Your task to perform on an android device: Set the phone to "Do not disturb". Image 0: 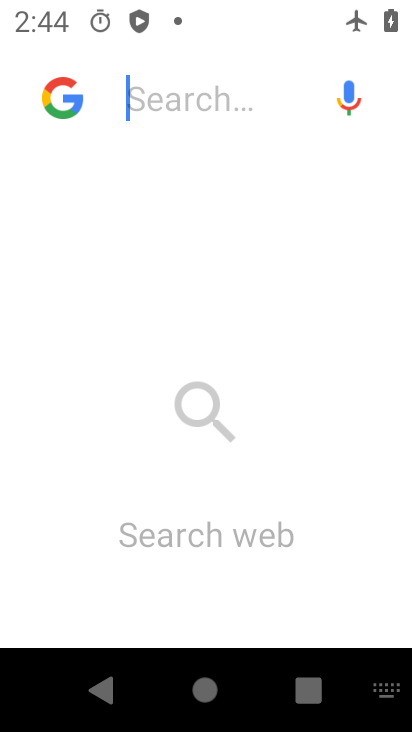
Step 0: press back button
Your task to perform on an android device: Set the phone to "Do not disturb". Image 1: 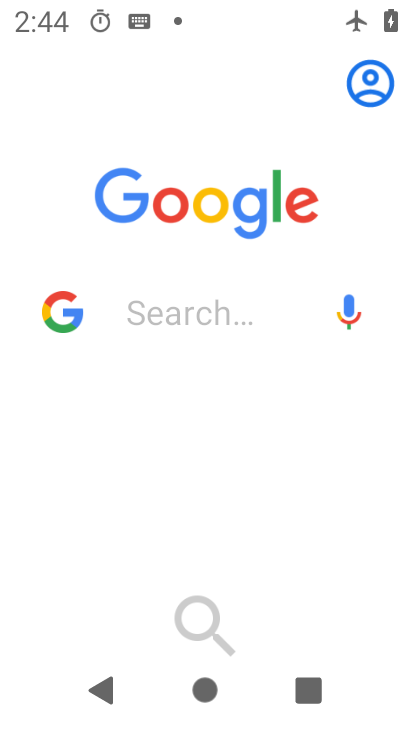
Step 1: press back button
Your task to perform on an android device: Set the phone to "Do not disturb". Image 2: 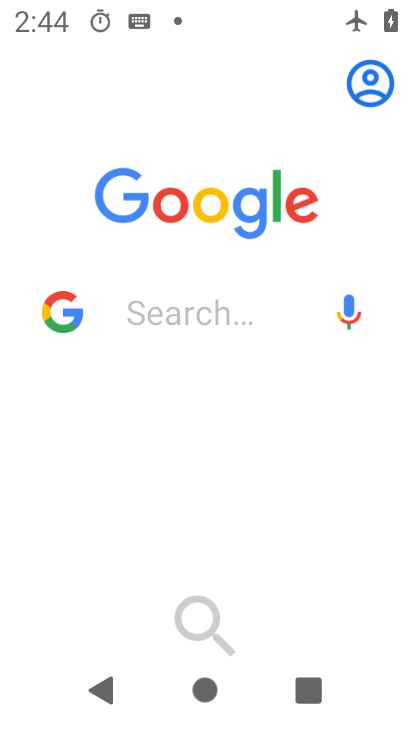
Step 2: press back button
Your task to perform on an android device: Set the phone to "Do not disturb". Image 3: 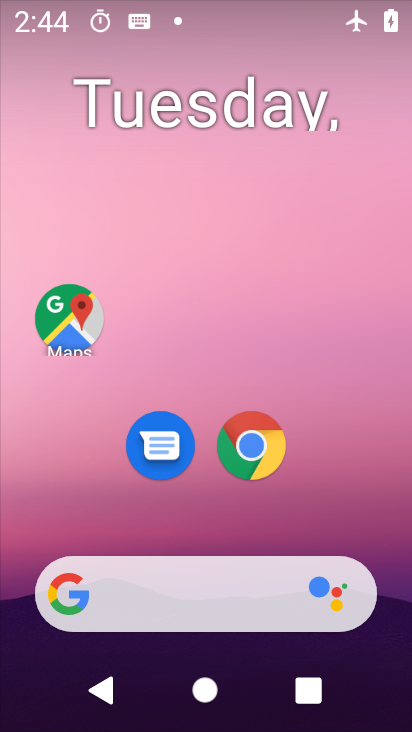
Step 3: drag from (361, 523) to (205, 115)
Your task to perform on an android device: Set the phone to "Do not disturb". Image 4: 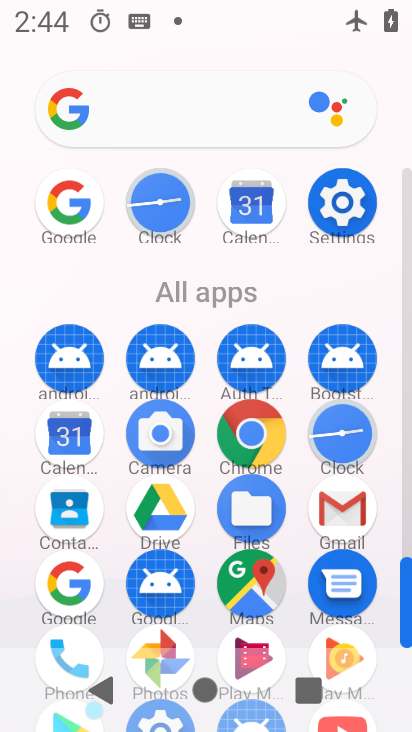
Step 4: click (362, 205)
Your task to perform on an android device: Set the phone to "Do not disturb". Image 5: 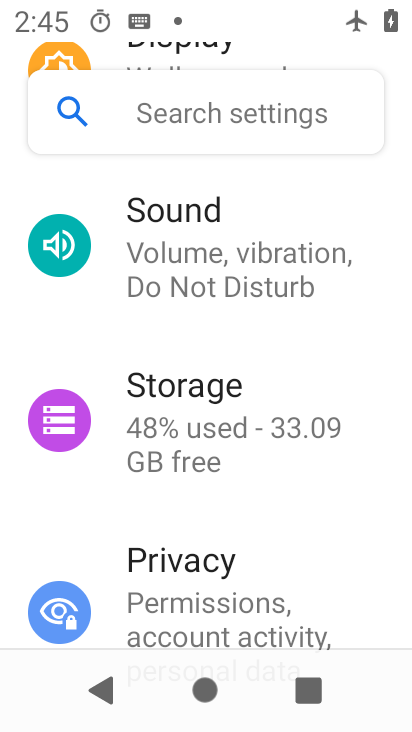
Step 5: click (189, 242)
Your task to perform on an android device: Set the phone to "Do not disturb". Image 6: 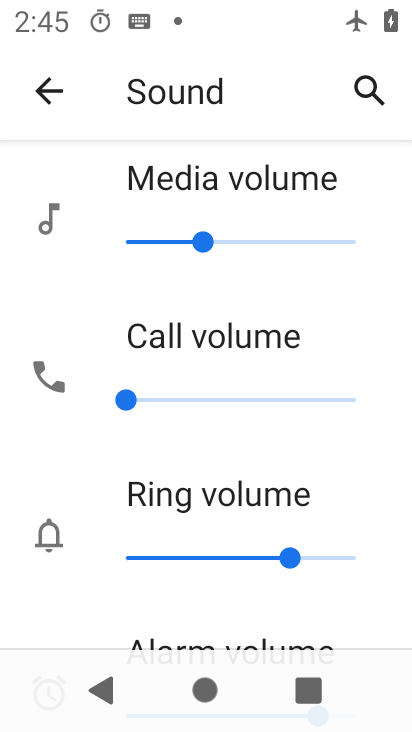
Step 6: drag from (182, 565) to (154, 165)
Your task to perform on an android device: Set the phone to "Do not disturb". Image 7: 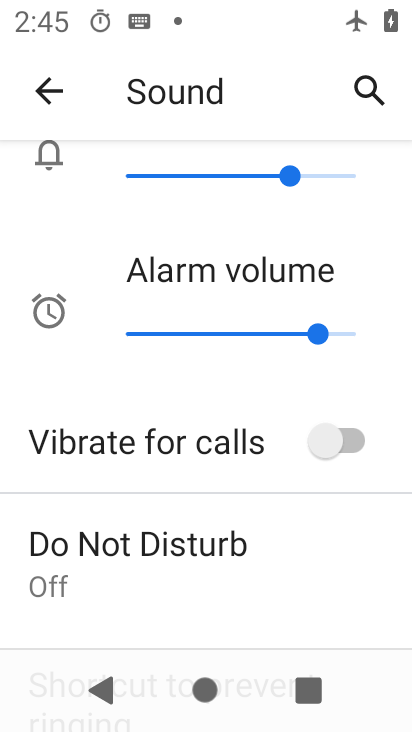
Step 7: click (90, 555)
Your task to perform on an android device: Set the phone to "Do not disturb". Image 8: 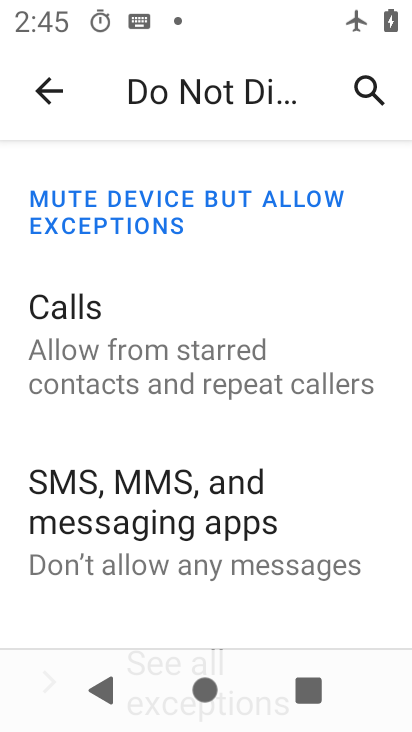
Step 8: drag from (90, 555) to (113, 161)
Your task to perform on an android device: Set the phone to "Do not disturb". Image 9: 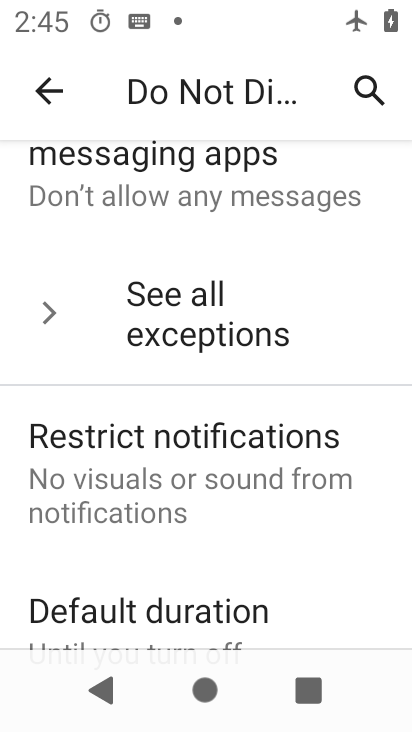
Step 9: drag from (166, 484) to (81, 180)
Your task to perform on an android device: Set the phone to "Do not disturb". Image 10: 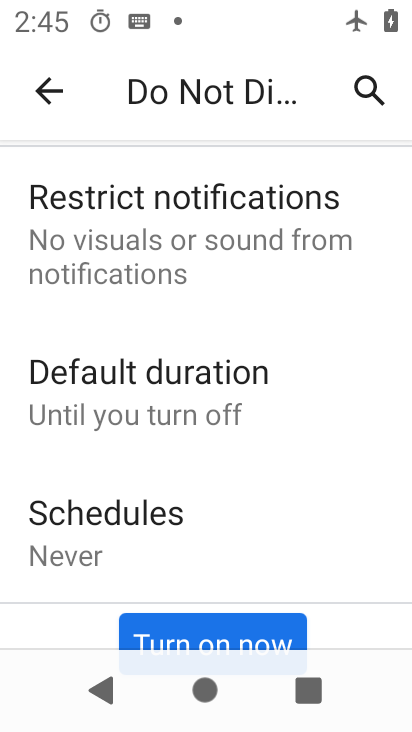
Step 10: click (163, 630)
Your task to perform on an android device: Set the phone to "Do not disturb". Image 11: 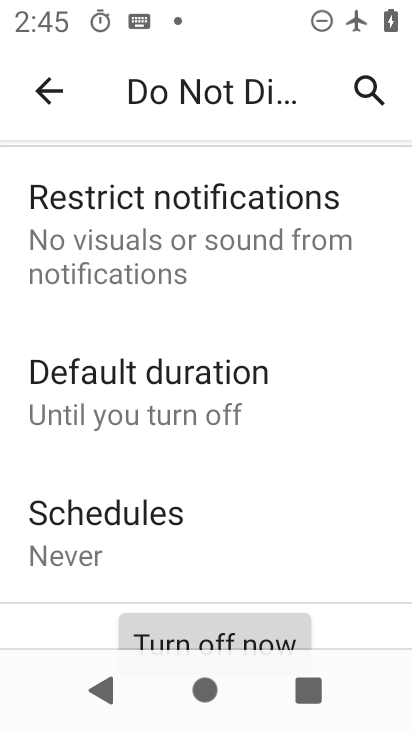
Step 11: task complete